Your task to perform on an android device: Go to battery settings Image 0: 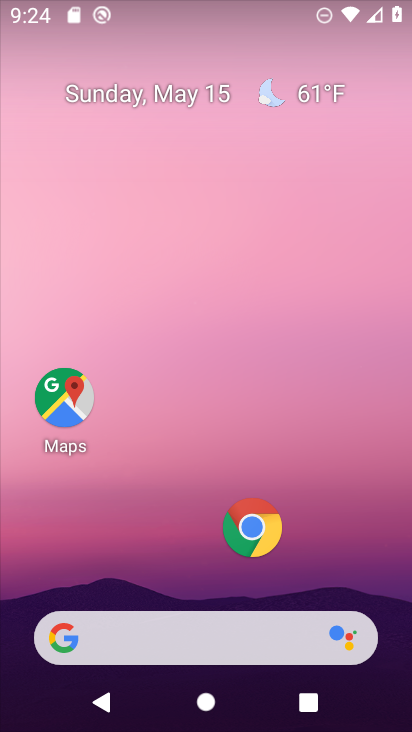
Step 0: press home button
Your task to perform on an android device: Go to battery settings Image 1: 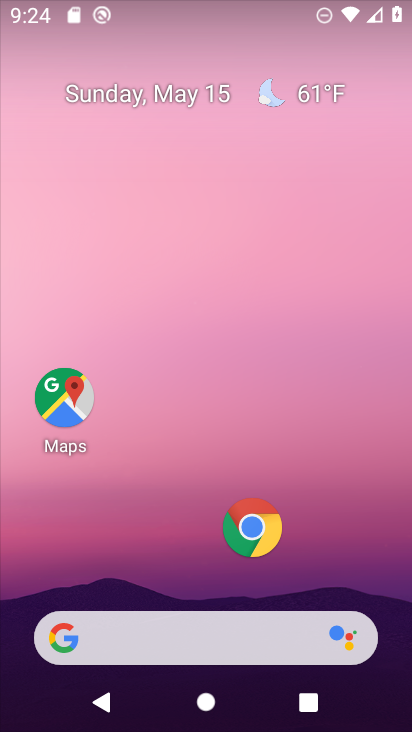
Step 1: drag from (202, 589) to (225, 48)
Your task to perform on an android device: Go to battery settings Image 2: 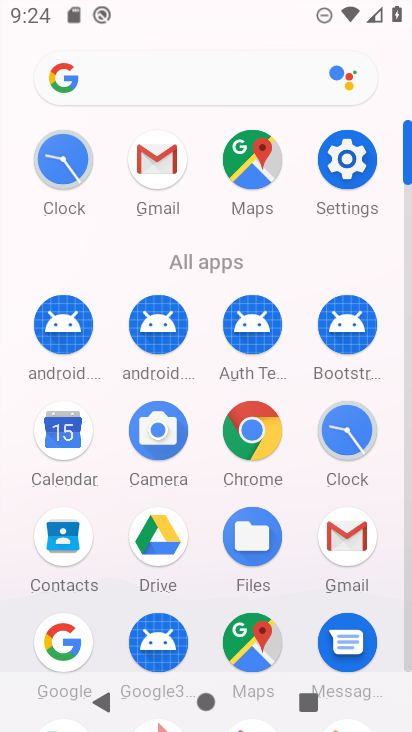
Step 2: click (344, 155)
Your task to perform on an android device: Go to battery settings Image 3: 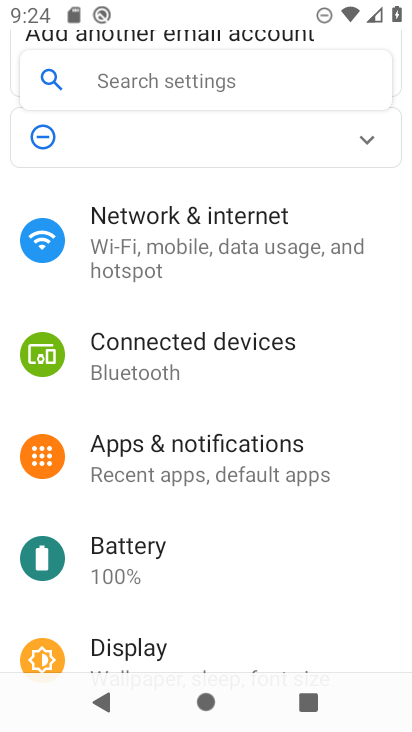
Step 3: click (170, 574)
Your task to perform on an android device: Go to battery settings Image 4: 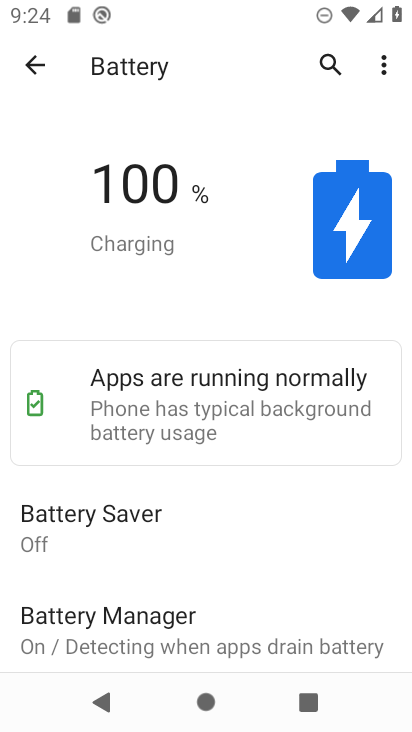
Step 4: click (241, 49)
Your task to perform on an android device: Go to battery settings Image 5: 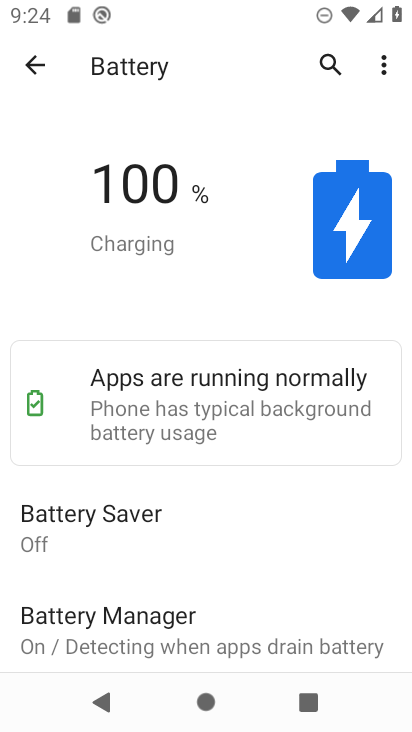
Step 5: task complete